Your task to perform on an android device: check the backup settings in the google photos Image 0: 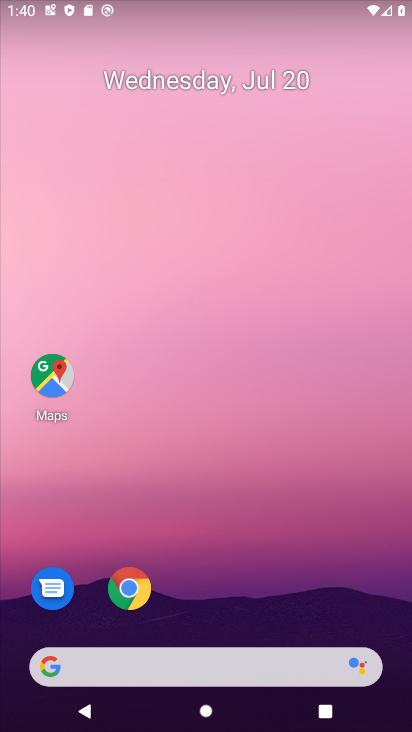
Step 0: drag from (399, 609) to (310, 0)
Your task to perform on an android device: check the backup settings in the google photos Image 1: 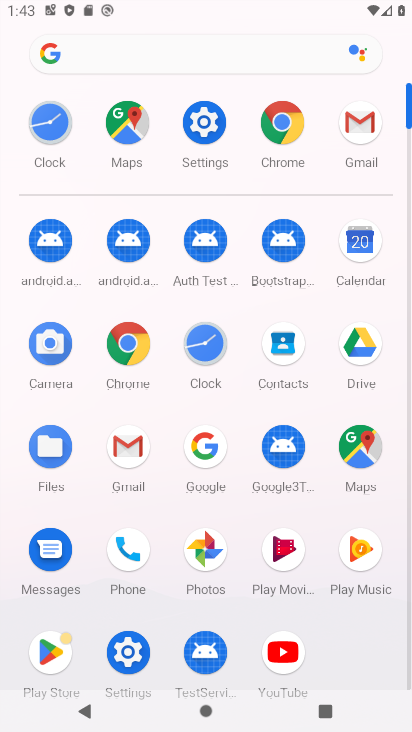
Step 1: click (196, 569)
Your task to perform on an android device: check the backup settings in the google photos Image 2: 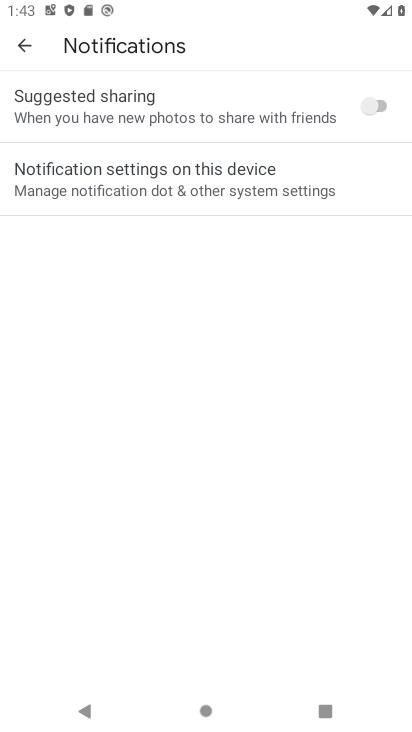
Step 2: press back button
Your task to perform on an android device: check the backup settings in the google photos Image 3: 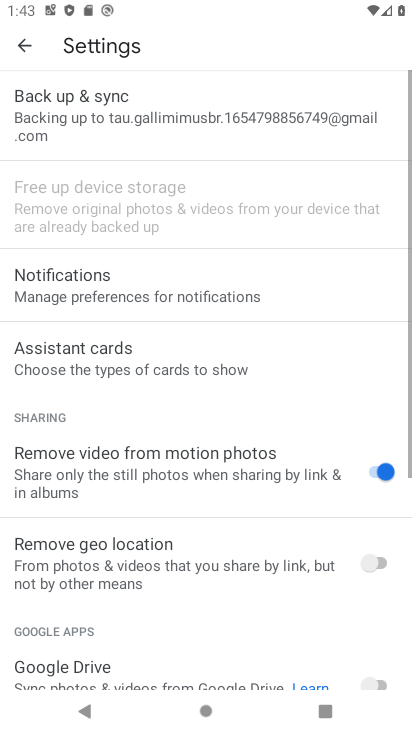
Step 3: click (216, 134)
Your task to perform on an android device: check the backup settings in the google photos Image 4: 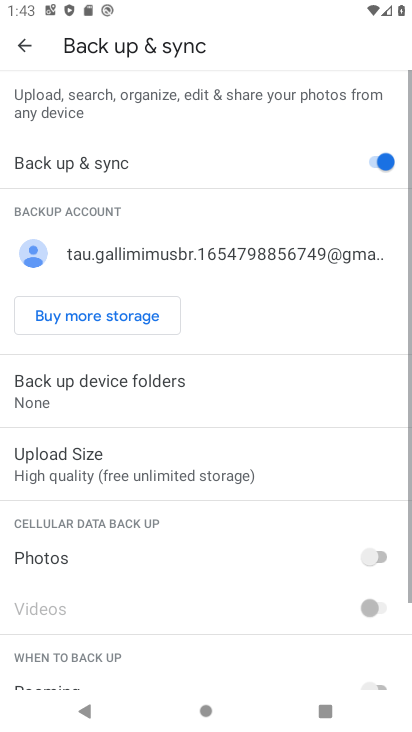
Step 4: task complete